Your task to perform on an android device: Go to ESPN.com Image 0: 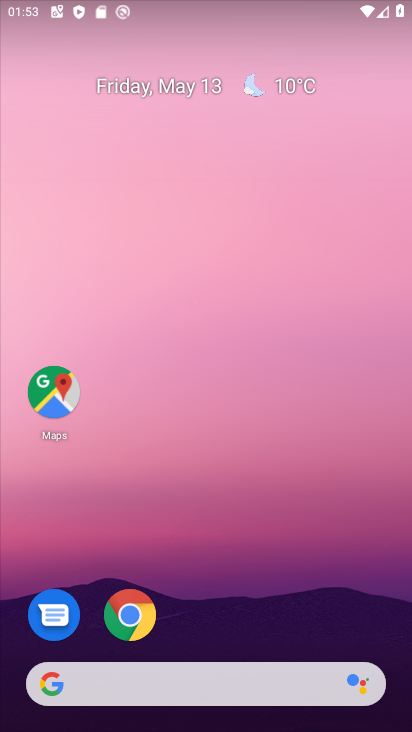
Step 0: click (113, 621)
Your task to perform on an android device: Go to ESPN.com Image 1: 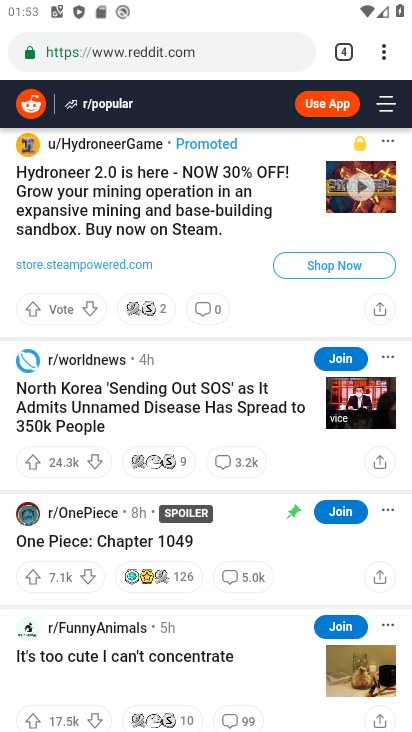
Step 1: click (346, 46)
Your task to perform on an android device: Go to ESPN.com Image 2: 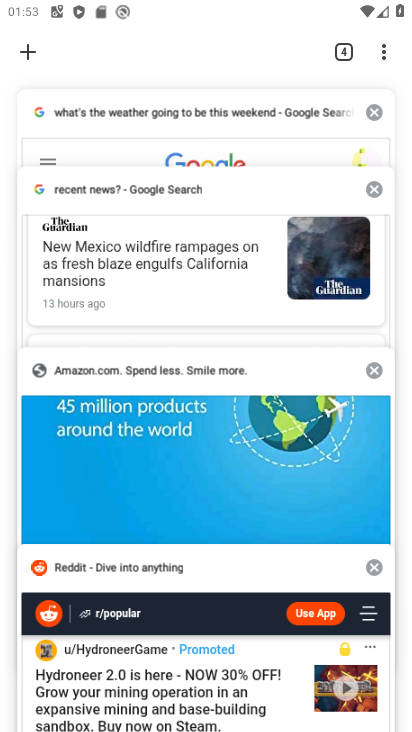
Step 2: click (30, 47)
Your task to perform on an android device: Go to ESPN.com Image 3: 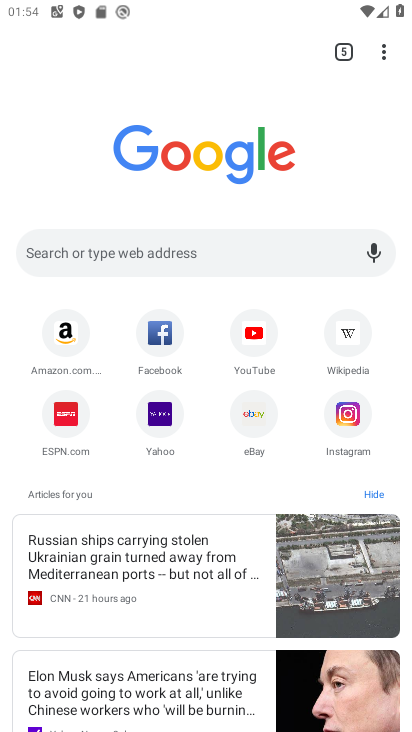
Step 3: drag from (164, 320) to (168, 131)
Your task to perform on an android device: Go to ESPN.com Image 4: 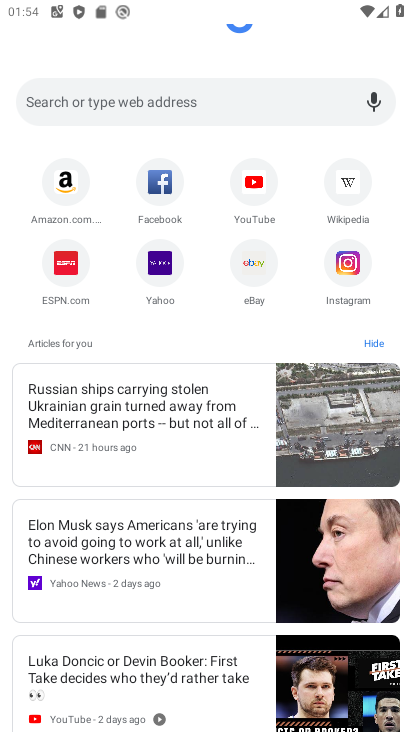
Step 4: click (66, 257)
Your task to perform on an android device: Go to ESPN.com Image 5: 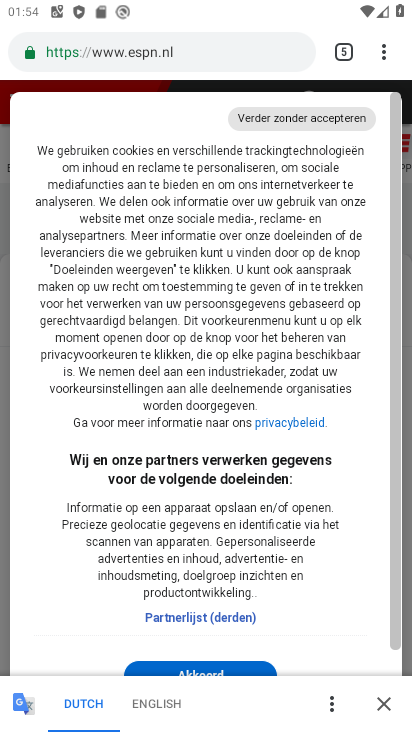
Step 5: task complete